Your task to perform on an android device: turn on translation in the chrome app Image 0: 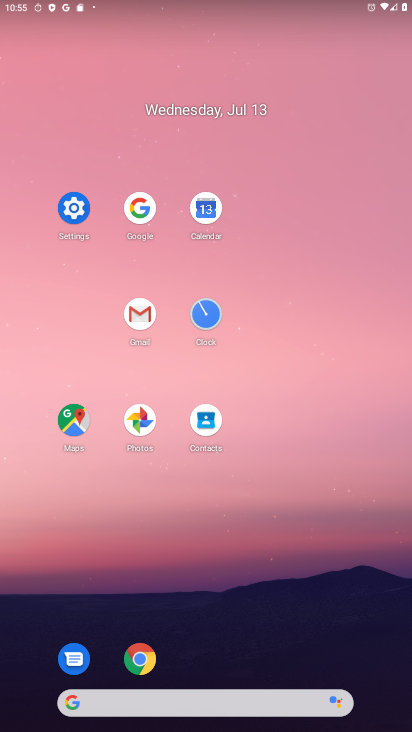
Step 0: click (76, 190)
Your task to perform on an android device: turn on translation in the chrome app Image 1: 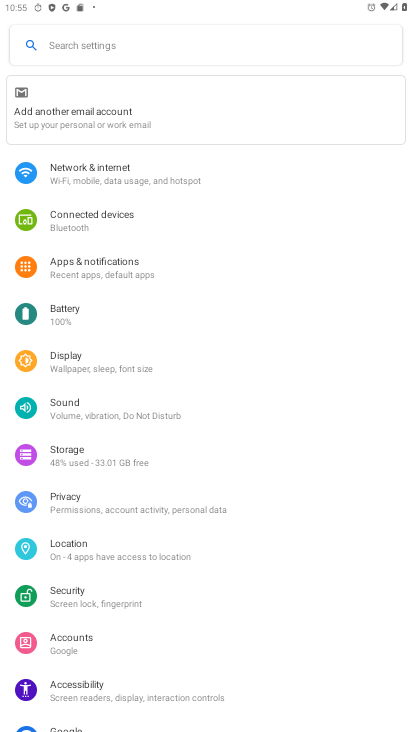
Step 1: press home button
Your task to perform on an android device: turn on translation in the chrome app Image 2: 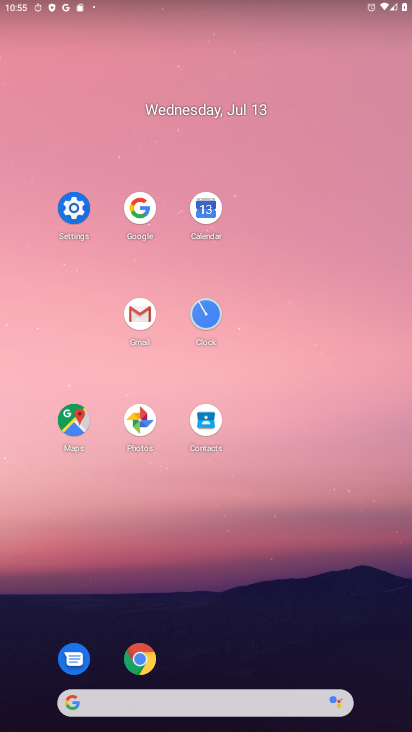
Step 2: click (149, 652)
Your task to perform on an android device: turn on translation in the chrome app Image 3: 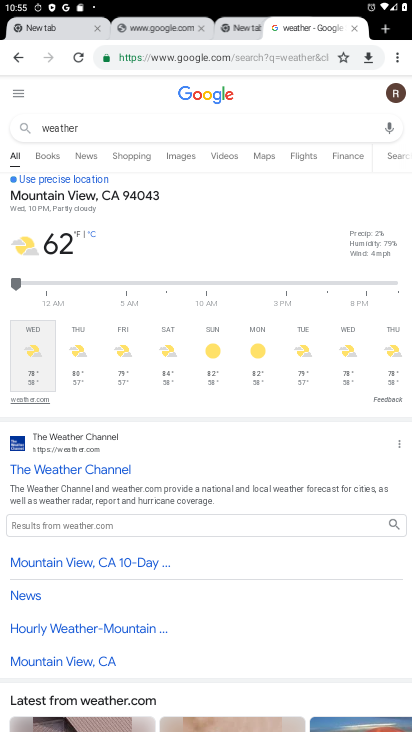
Step 3: click (387, 34)
Your task to perform on an android device: turn on translation in the chrome app Image 4: 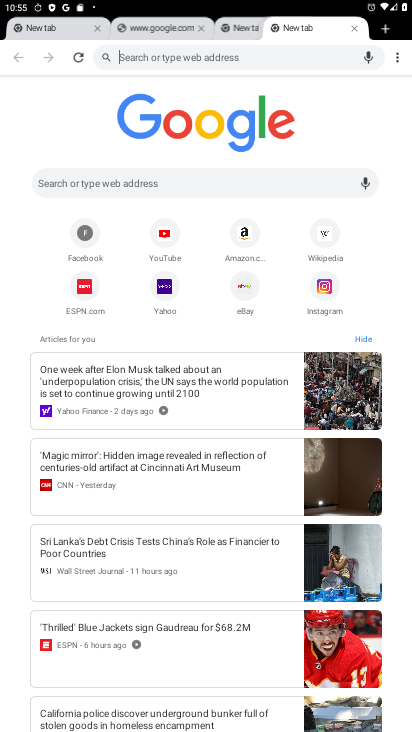
Step 4: click (389, 51)
Your task to perform on an android device: turn on translation in the chrome app Image 5: 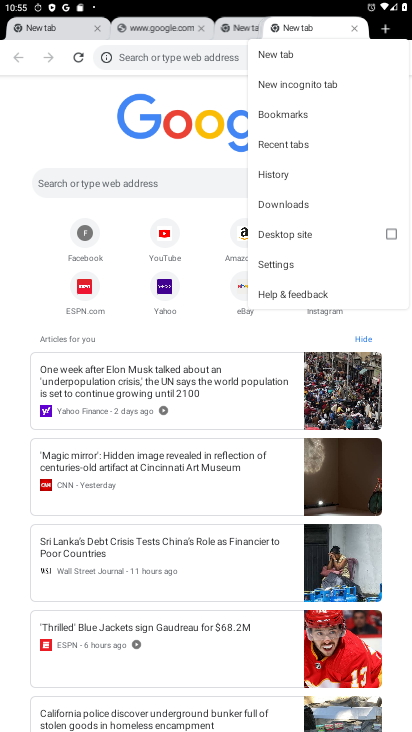
Step 5: click (284, 264)
Your task to perform on an android device: turn on translation in the chrome app Image 6: 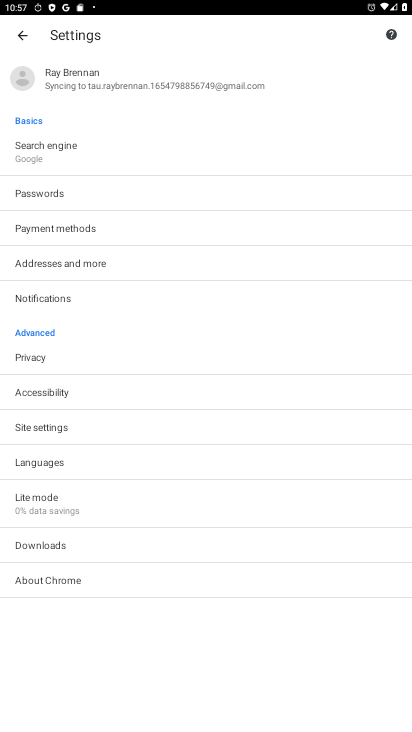
Step 6: press home button
Your task to perform on an android device: turn on translation in the chrome app Image 7: 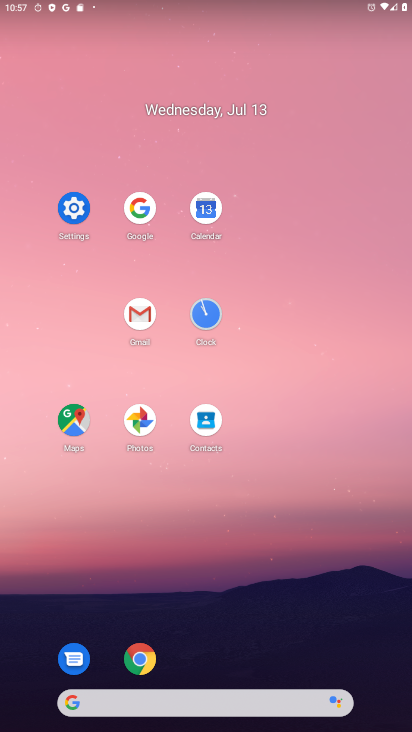
Step 7: click (137, 660)
Your task to perform on an android device: turn on translation in the chrome app Image 8: 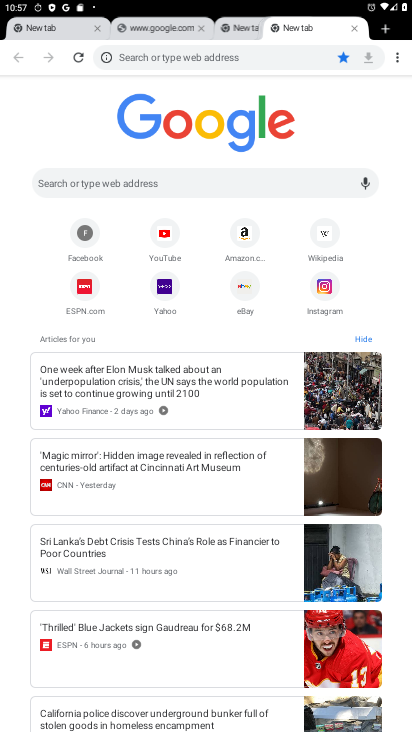
Step 8: click (398, 58)
Your task to perform on an android device: turn on translation in the chrome app Image 9: 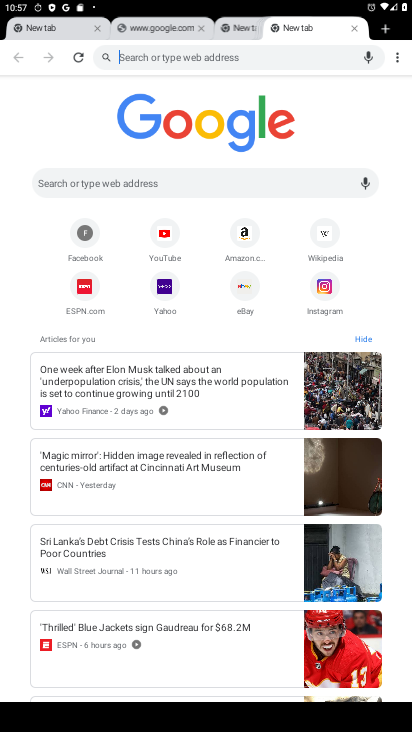
Step 9: click (400, 58)
Your task to perform on an android device: turn on translation in the chrome app Image 10: 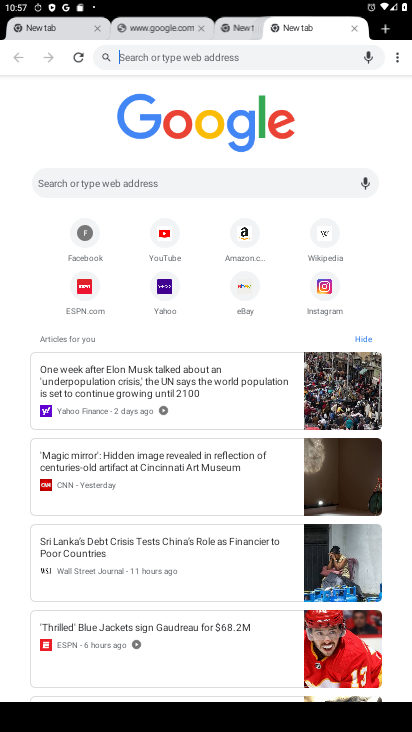
Step 10: click (393, 54)
Your task to perform on an android device: turn on translation in the chrome app Image 11: 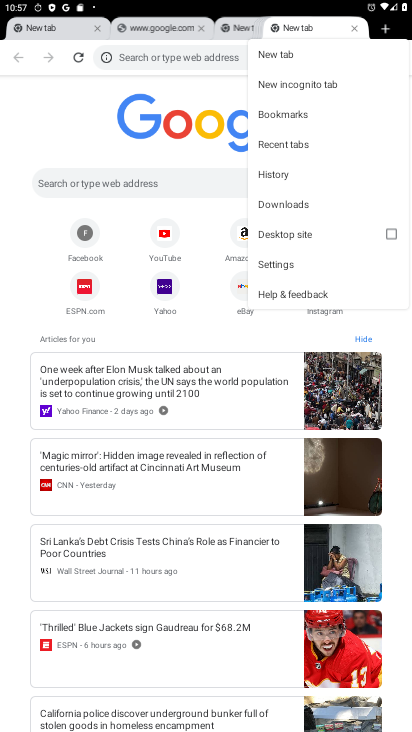
Step 11: click (292, 265)
Your task to perform on an android device: turn on translation in the chrome app Image 12: 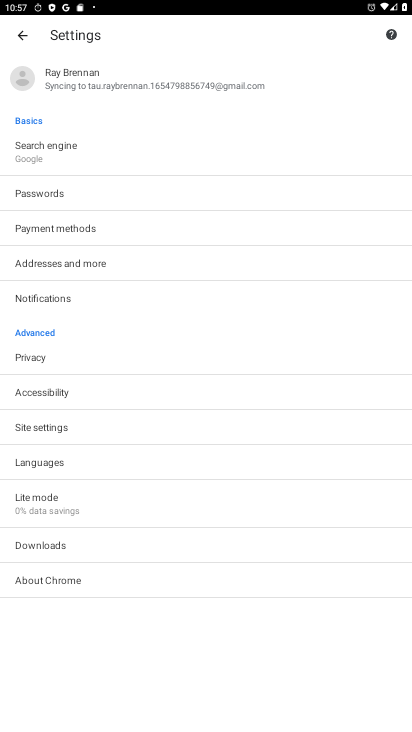
Step 12: click (90, 466)
Your task to perform on an android device: turn on translation in the chrome app Image 13: 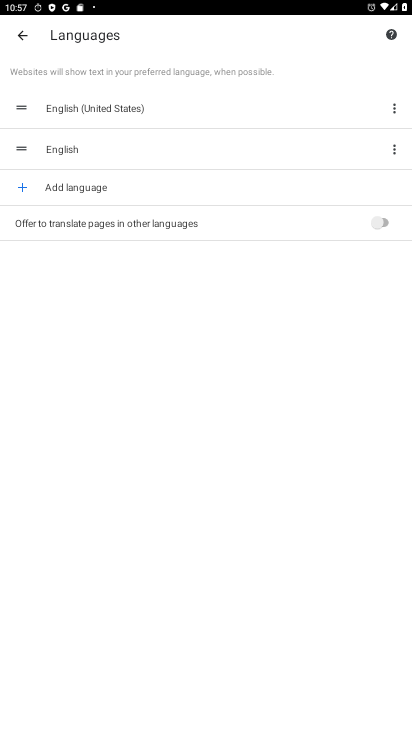
Step 13: click (379, 232)
Your task to perform on an android device: turn on translation in the chrome app Image 14: 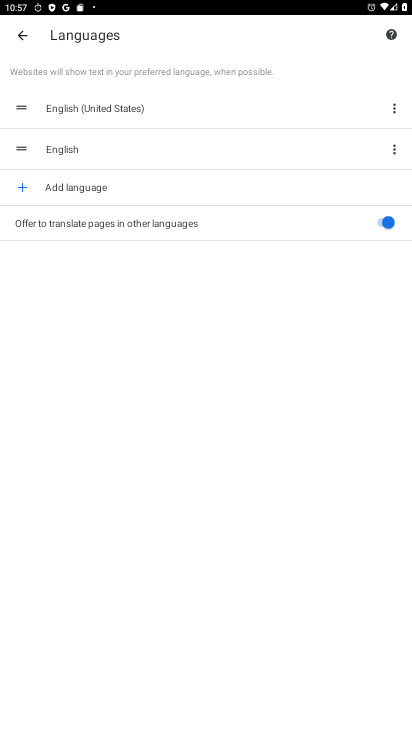
Step 14: task complete